Your task to perform on an android device: Open calendar and show me the second week of next month Image 0: 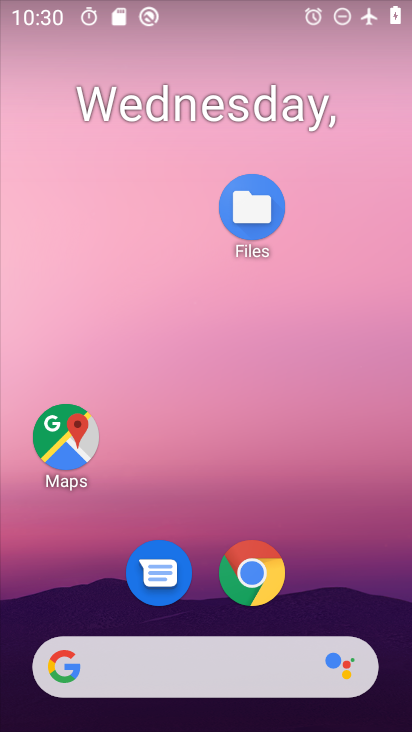
Step 0: drag from (279, 556) to (306, 363)
Your task to perform on an android device: Open calendar and show me the second week of next month Image 1: 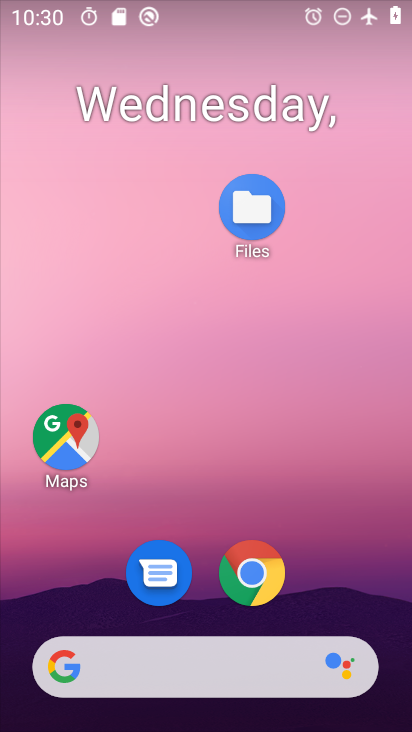
Step 1: drag from (329, 531) to (351, 141)
Your task to perform on an android device: Open calendar and show me the second week of next month Image 2: 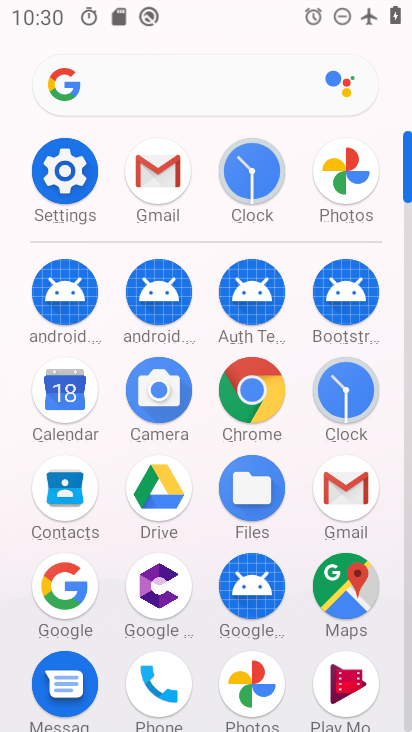
Step 2: click (61, 422)
Your task to perform on an android device: Open calendar and show me the second week of next month Image 3: 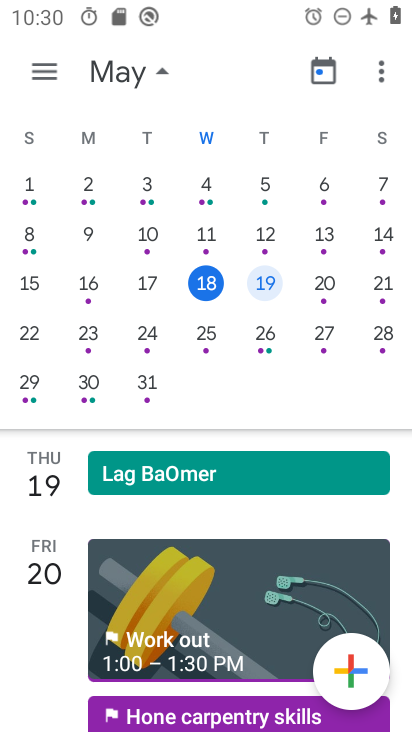
Step 3: drag from (389, 282) to (44, 233)
Your task to perform on an android device: Open calendar and show me the second week of next month Image 4: 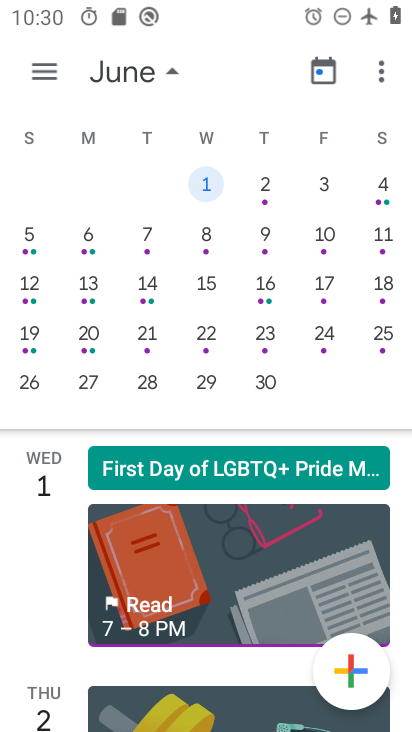
Step 4: click (29, 298)
Your task to perform on an android device: Open calendar and show me the second week of next month Image 5: 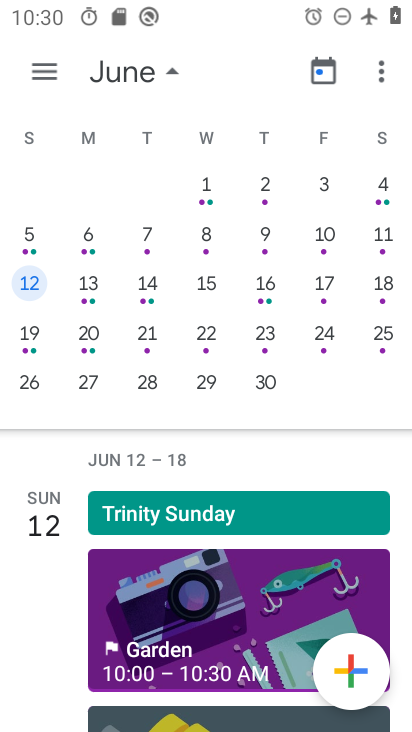
Step 5: task complete